Your task to perform on an android device: Go to CNN.com Image 0: 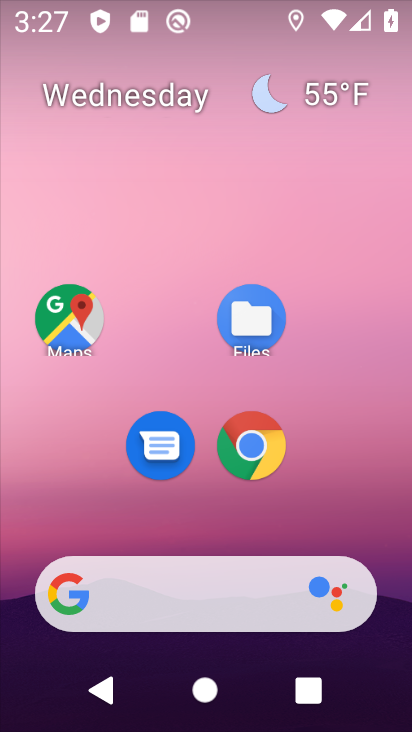
Step 0: click (255, 457)
Your task to perform on an android device: Go to CNN.com Image 1: 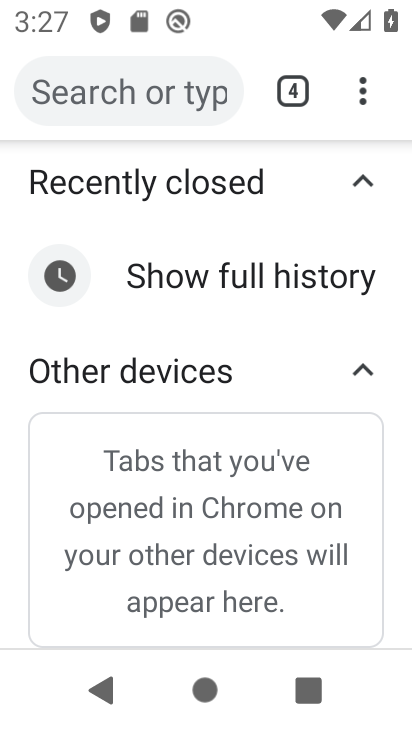
Step 1: click (200, 105)
Your task to perform on an android device: Go to CNN.com Image 2: 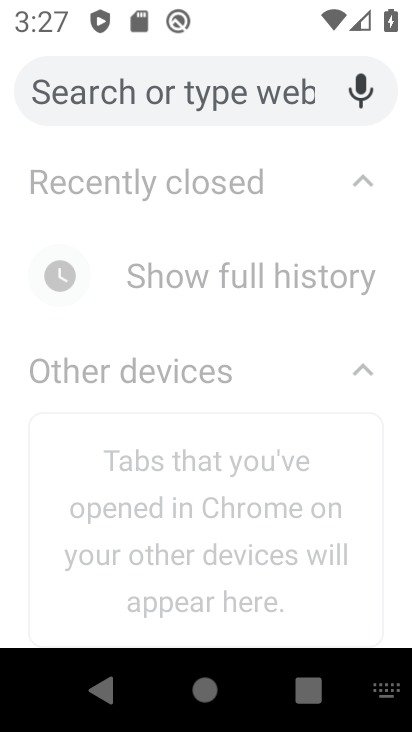
Step 2: type "cnn.com"
Your task to perform on an android device: Go to CNN.com Image 3: 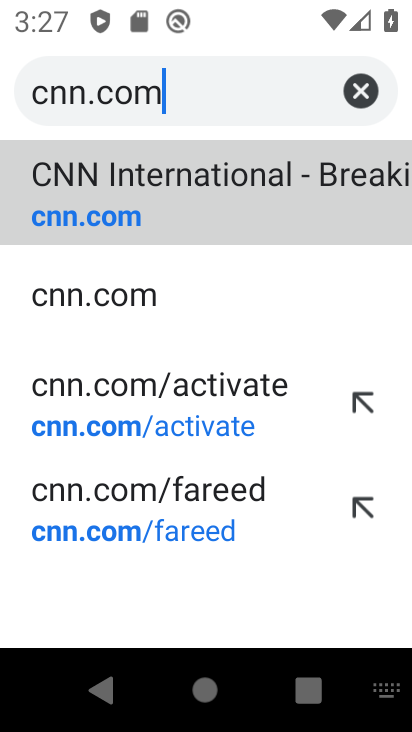
Step 3: click (155, 185)
Your task to perform on an android device: Go to CNN.com Image 4: 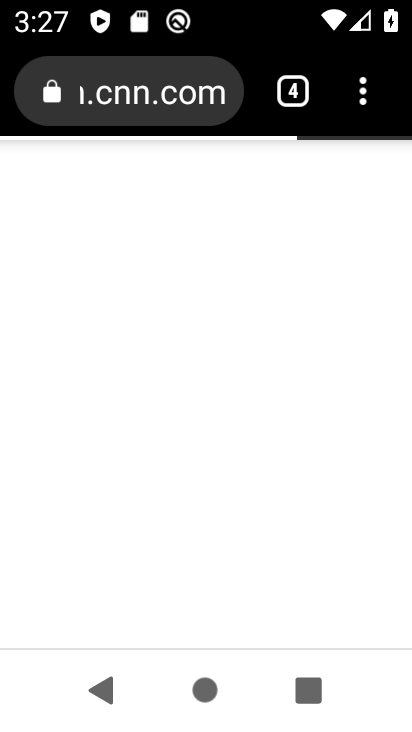
Step 4: click (155, 185)
Your task to perform on an android device: Go to CNN.com Image 5: 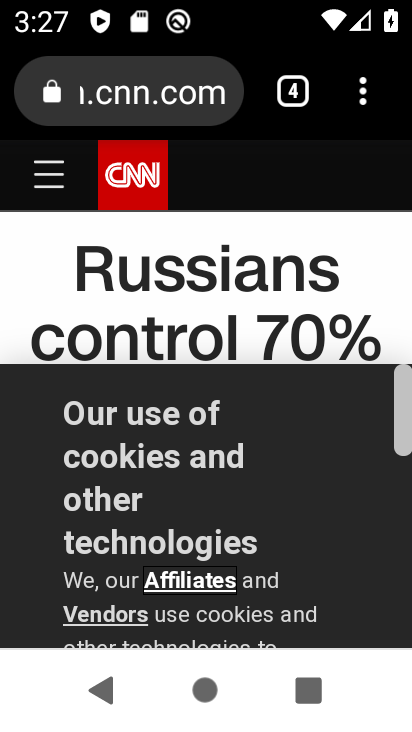
Step 5: task complete